Your task to perform on an android device: open the mobile data screen to see how much data has been used Image 0: 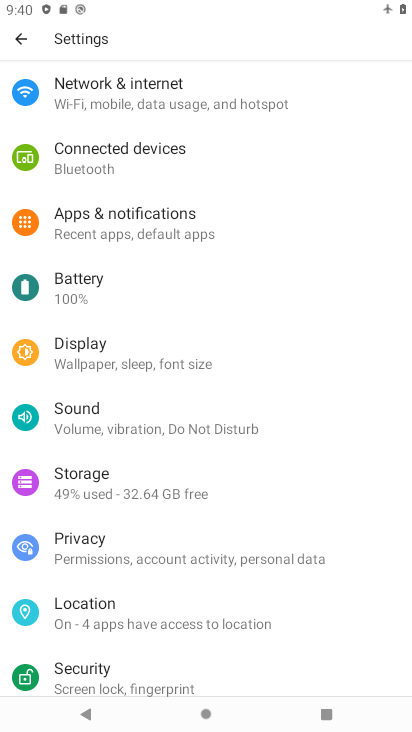
Step 0: click (77, 101)
Your task to perform on an android device: open the mobile data screen to see how much data has been used Image 1: 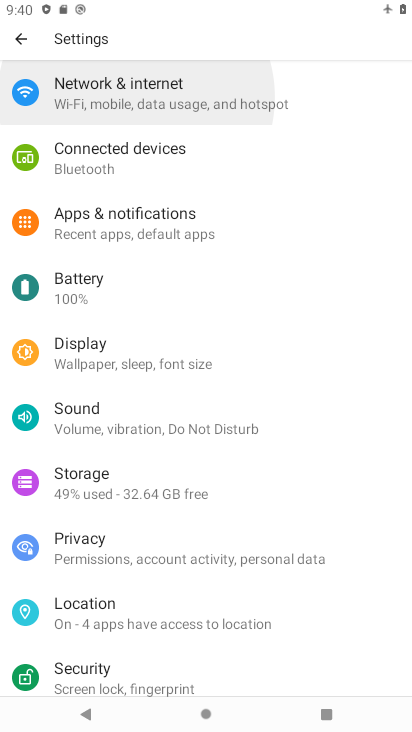
Step 1: click (78, 100)
Your task to perform on an android device: open the mobile data screen to see how much data has been used Image 2: 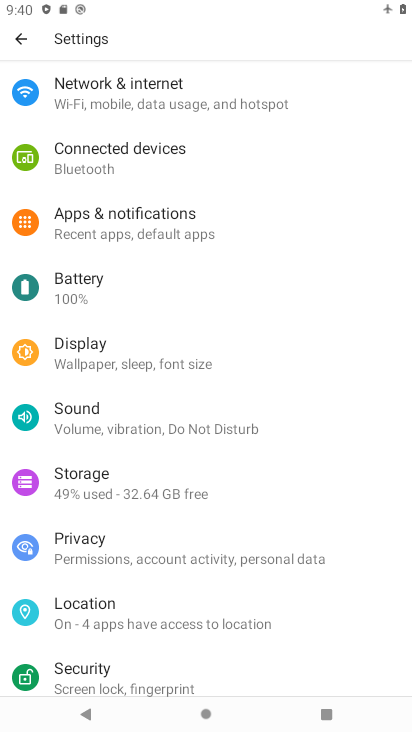
Step 2: click (79, 101)
Your task to perform on an android device: open the mobile data screen to see how much data has been used Image 3: 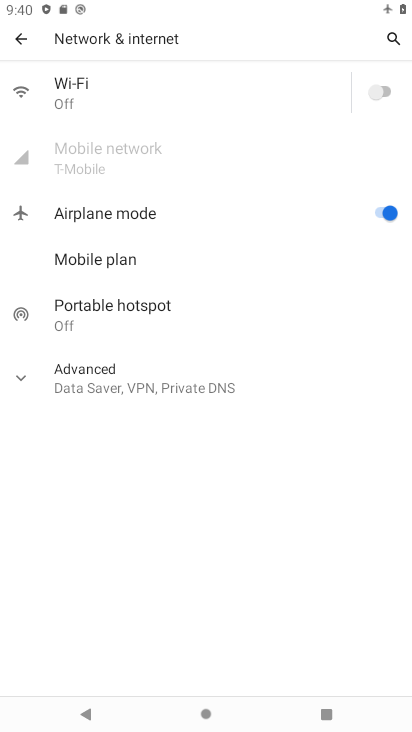
Step 3: click (393, 216)
Your task to perform on an android device: open the mobile data screen to see how much data has been used Image 4: 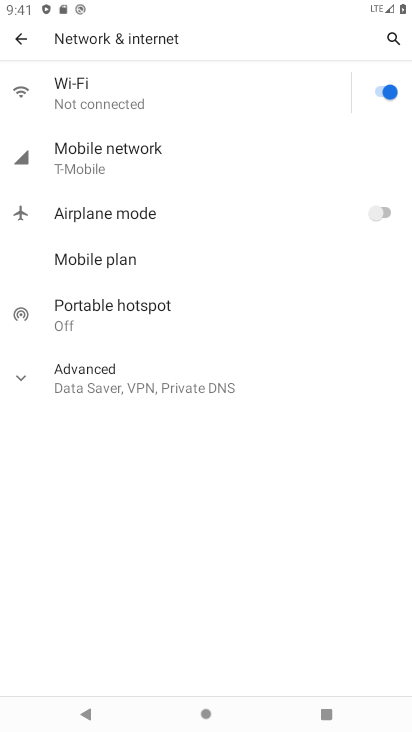
Step 4: click (103, 147)
Your task to perform on an android device: open the mobile data screen to see how much data has been used Image 5: 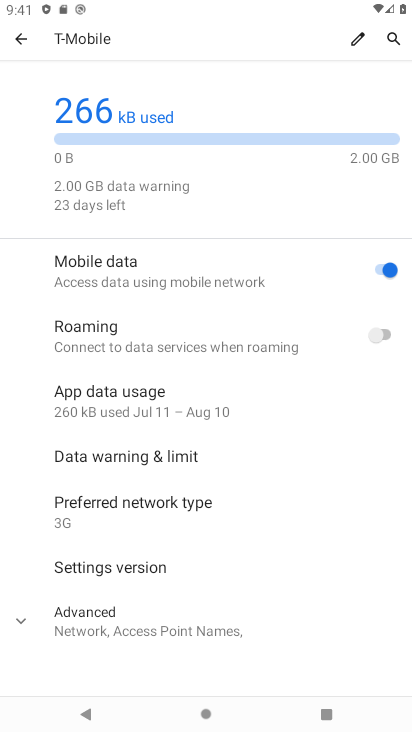
Step 5: task complete